Your task to perform on an android device: toggle priority inbox in the gmail app Image 0: 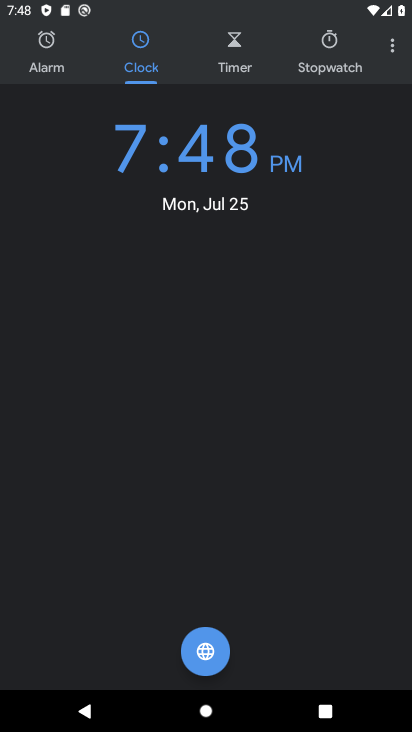
Step 0: press home button
Your task to perform on an android device: toggle priority inbox in the gmail app Image 1: 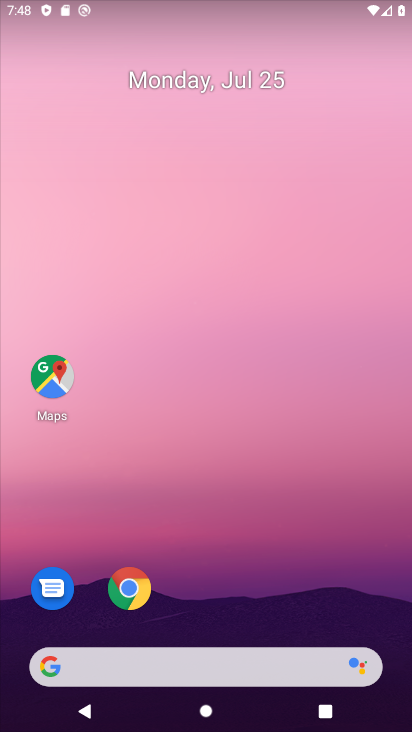
Step 1: drag from (219, 662) to (175, 340)
Your task to perform on an android device: toggle priority inbox in the gmail app Image 2: 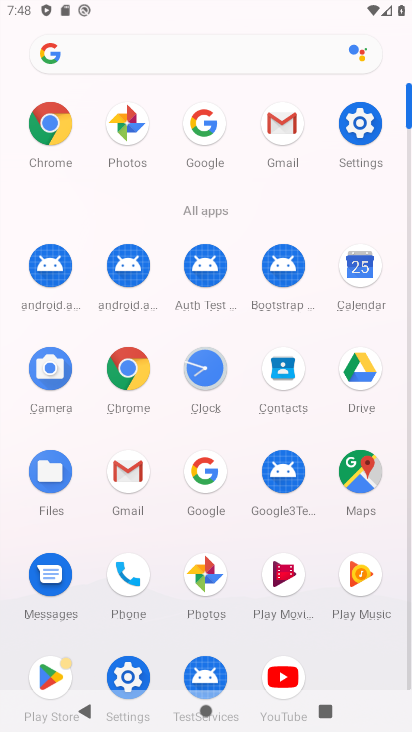
Step 2: click (126, 480)
Your task to perform on an android device: toggle priority inbox in the gmail app Image 3: 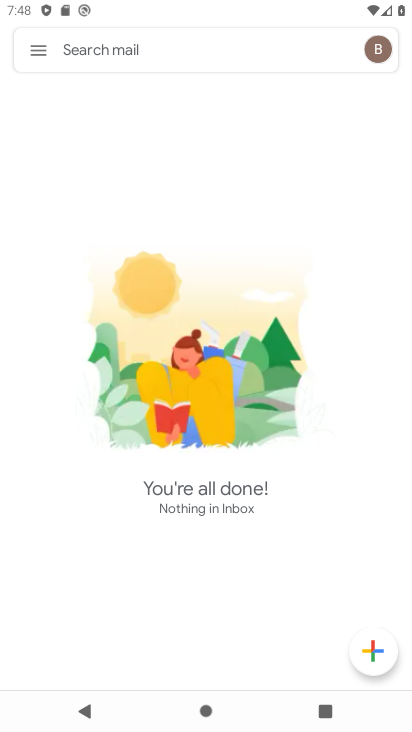
Step 3: click (32, 50)
Your task to perform on an android device: toggle priority inbox in the gmail app Image 4: 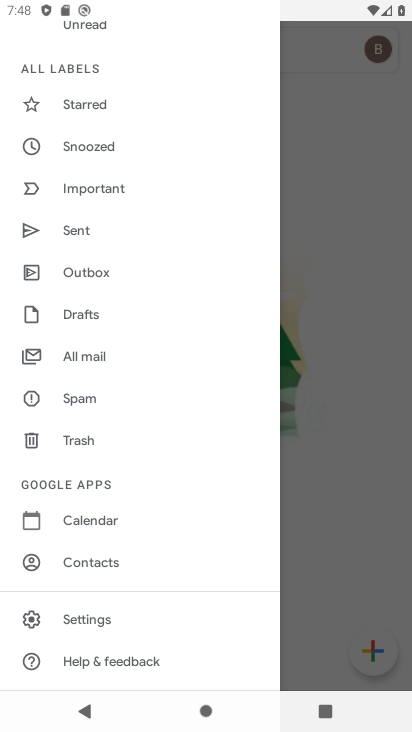
Step 4: click (86, 613)
Your task to perform on an android device: toggle priority inbox in the gmail app Image 5: 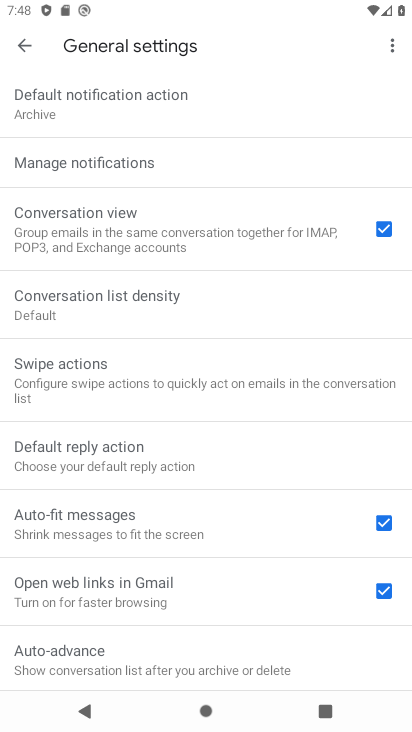
Step 5: click (17, 40)
Your task to perform on an android device: toggle priority inbox in the gmail app Image 6: 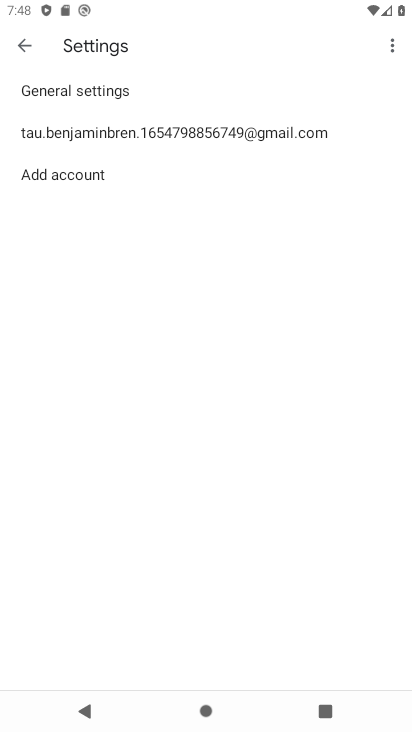
Step 6: click (58, 142)
Your task to perform on an android device: toggle priority inbox in the gmail app Image 7: 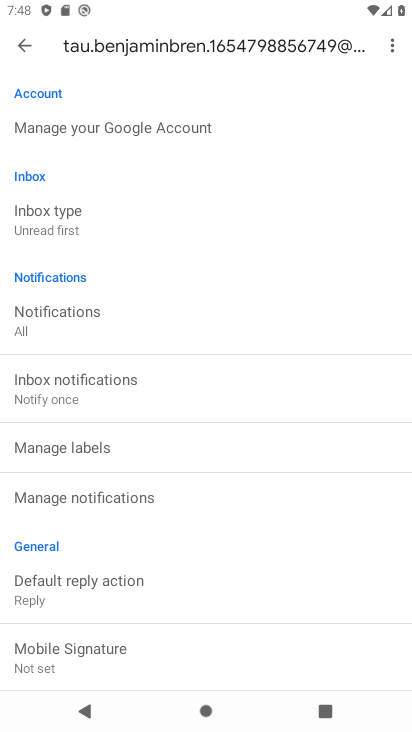
Step 7: click (35, 223)
Your task to perform on an android device: toggle priority inbox in the gmail app Image 8: 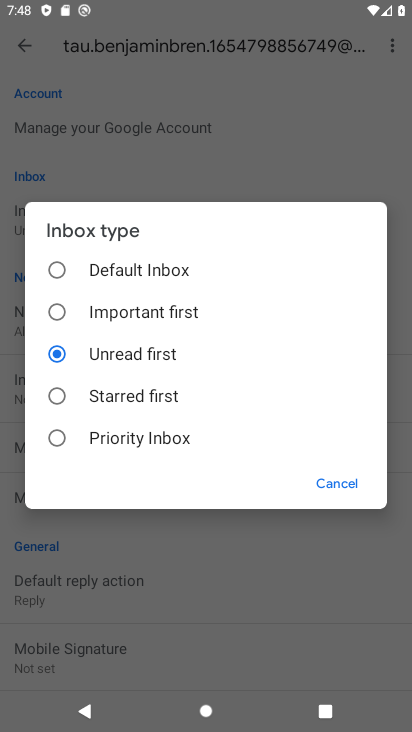
Step 8: click (116, 439)
Your task to perform on an android device: toggle priority inbox in the gmail app Image 9: 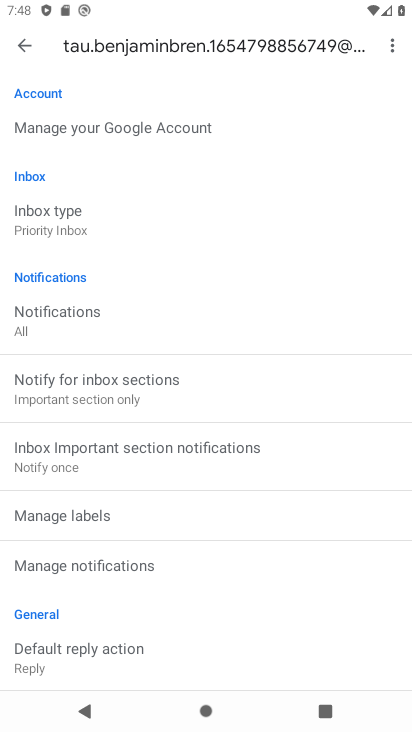
Step 9: task complete